Your task to perform on an android device: Search for hotels in Denver Image 0: 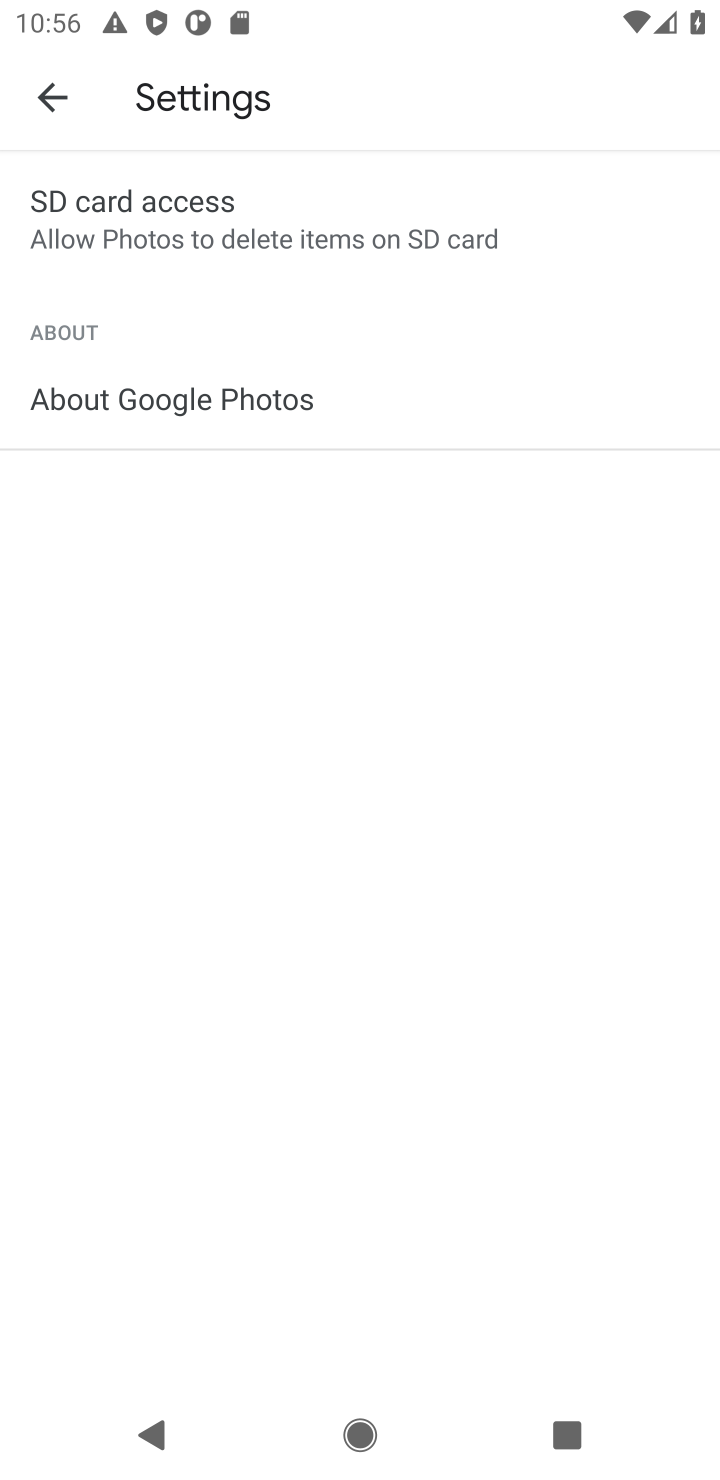
Step 0: press home button
Your task to perform on an android device: Search for hotels in Denver Image 1: 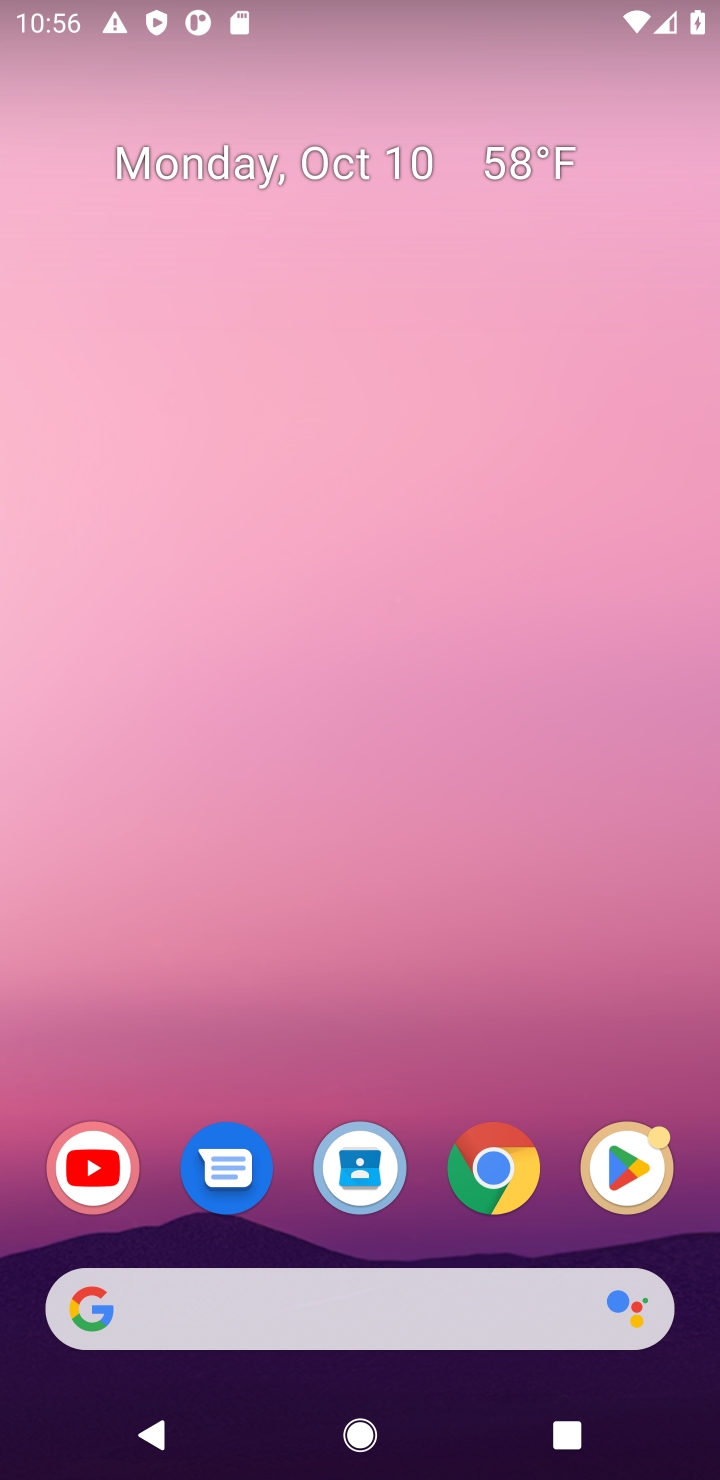
Step 1: click (375, 1278)
Your task to perform on an android device: Search for hotels in Denver Image 2: 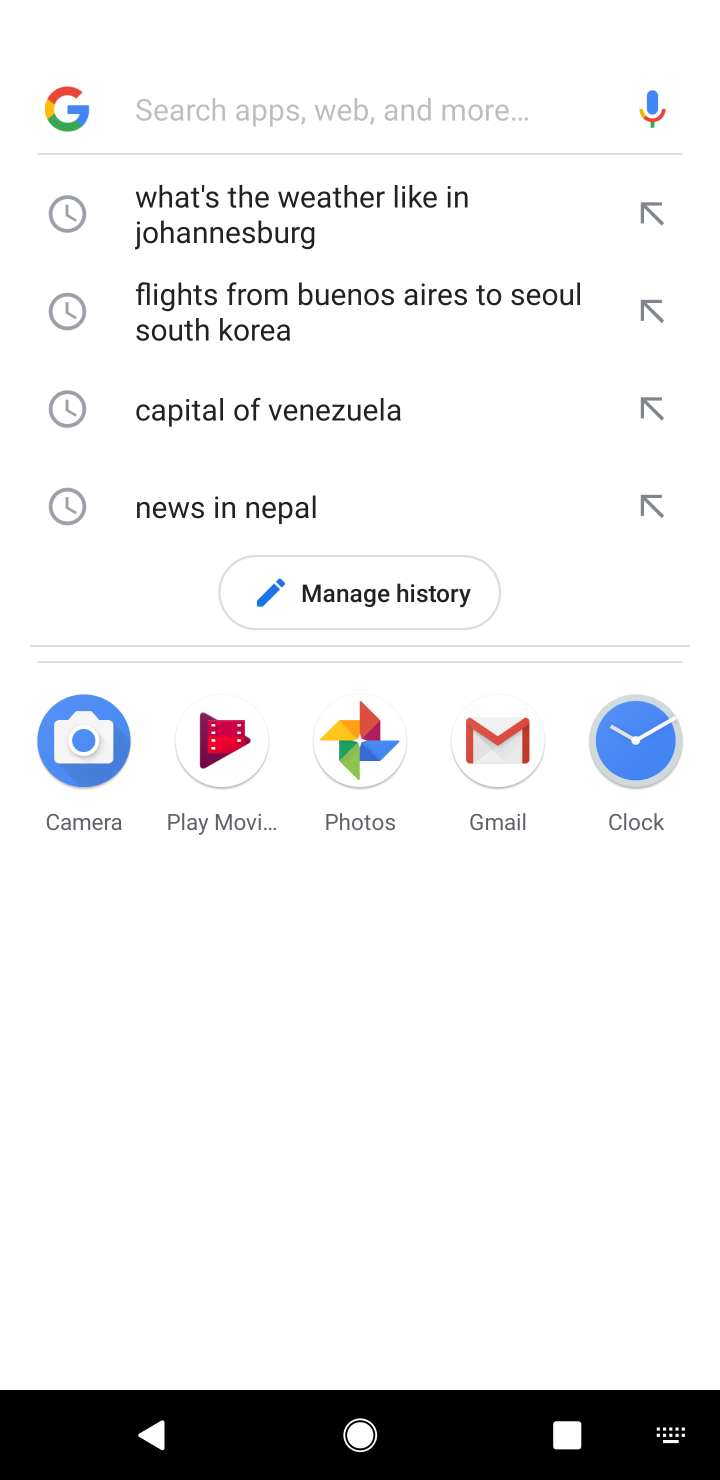
Step 2: type "hotels in Denver"
Your task to perform on an android device: Search for hotels in Denver Image 3: 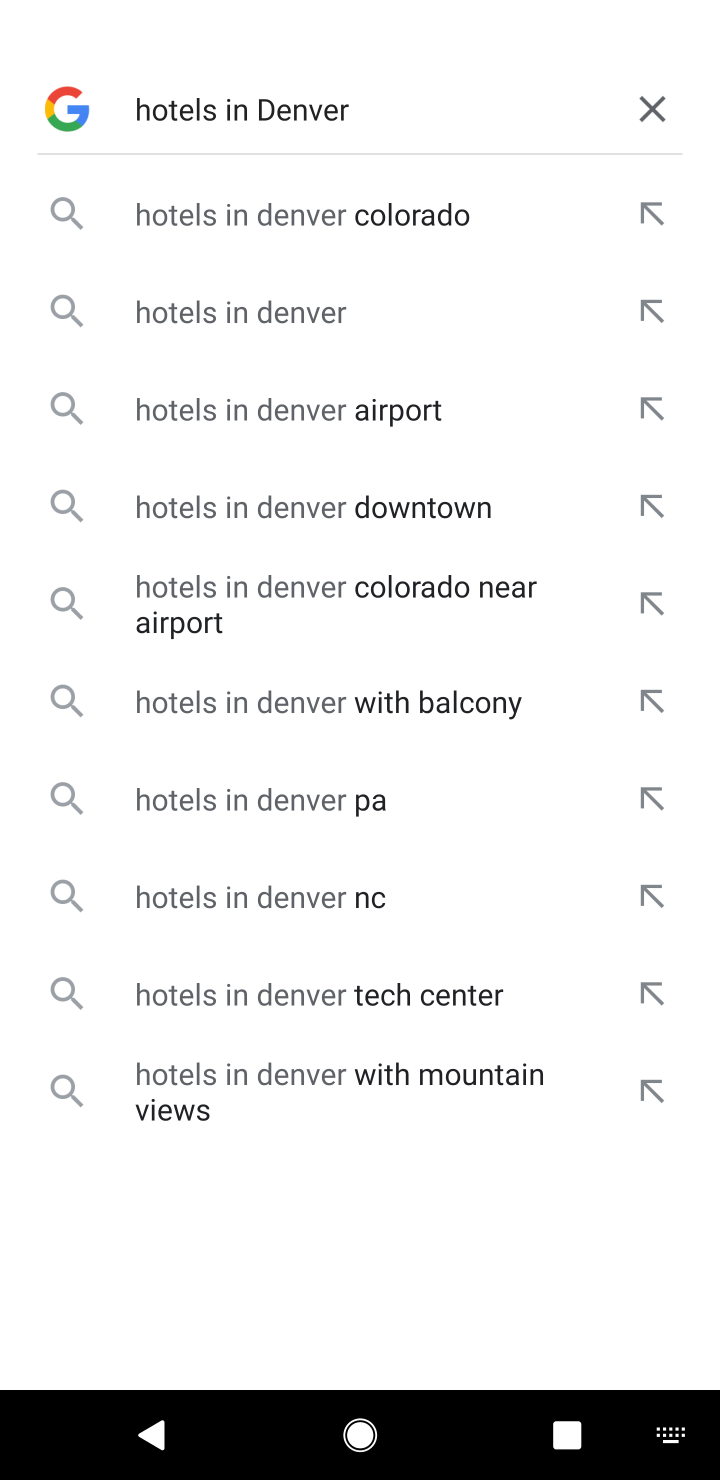
Step 3: type ""
Your task to perform on an android device: Search for hotels in Denver Image 4: 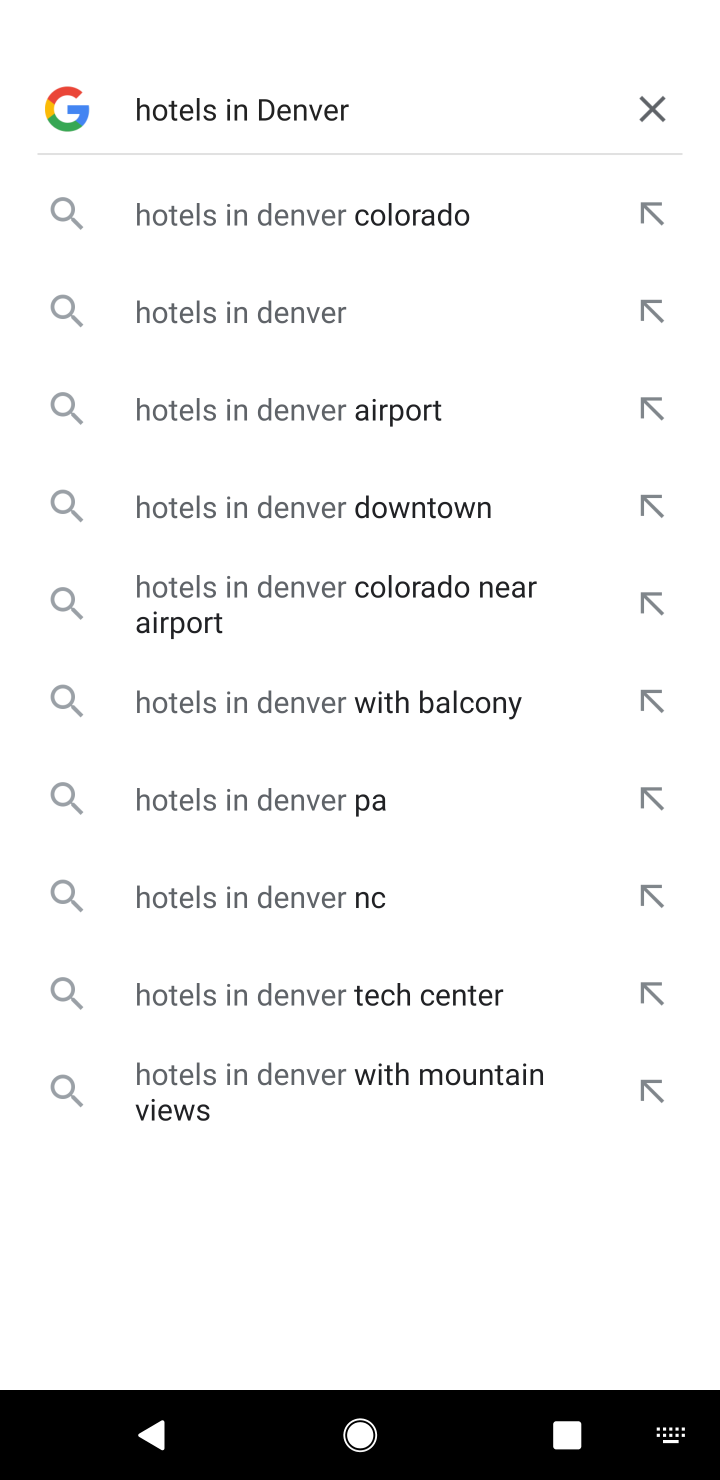
Step 4: click (365, 315)
Your task to perform on an android device: Search for hotels in Denver Image 5: 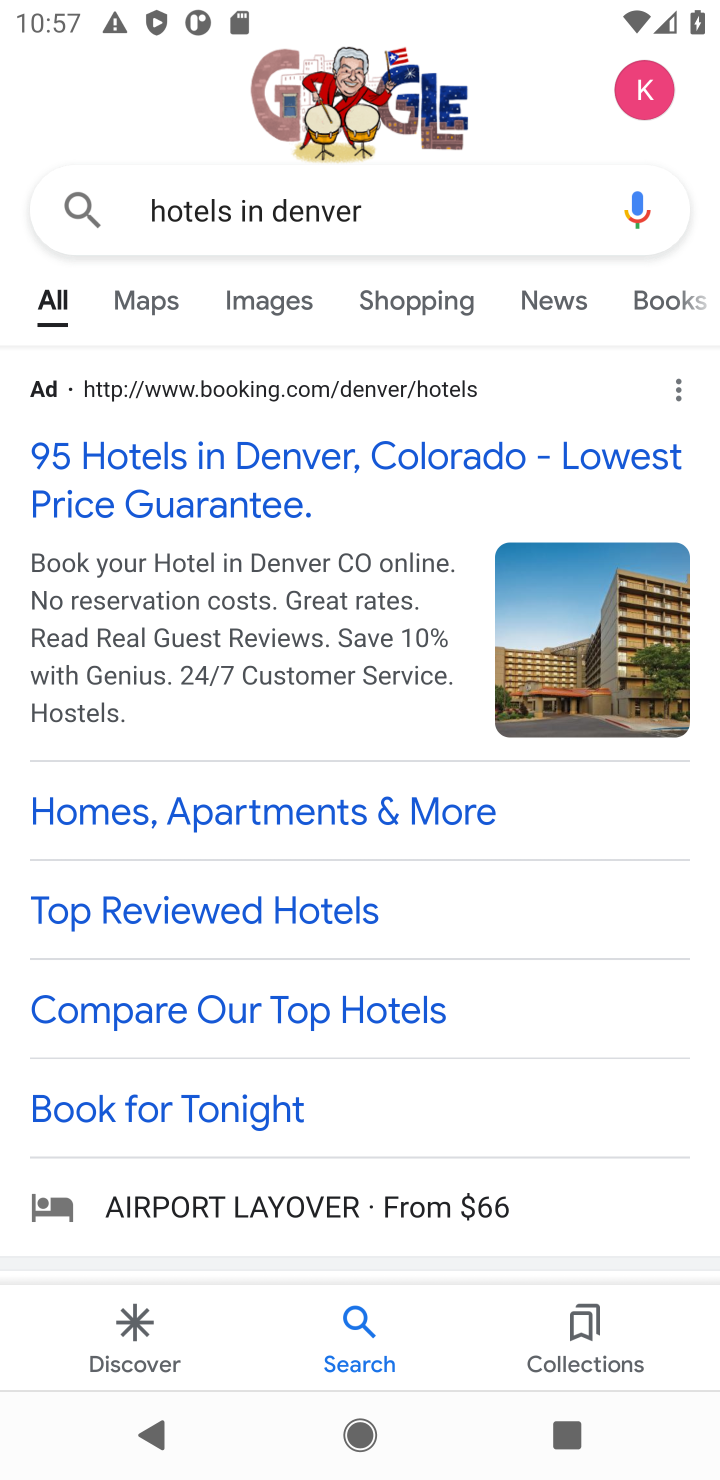
Step 5: task complete